Your task to perform on an android device: all mails in gmail Image 0: 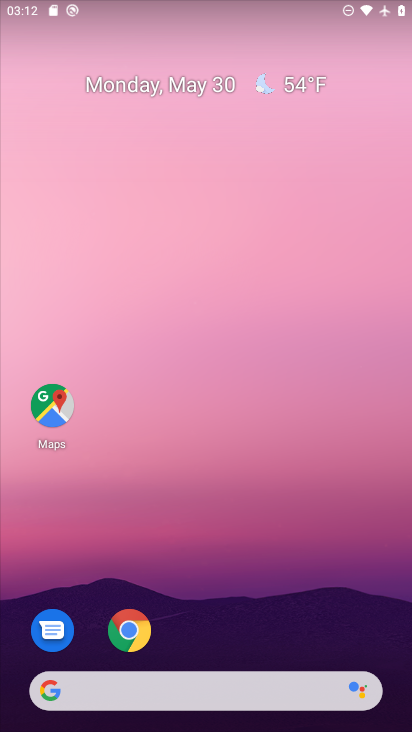
Step 0: press home button
Your task to perform on an android device: all mails in gmail Image 1: 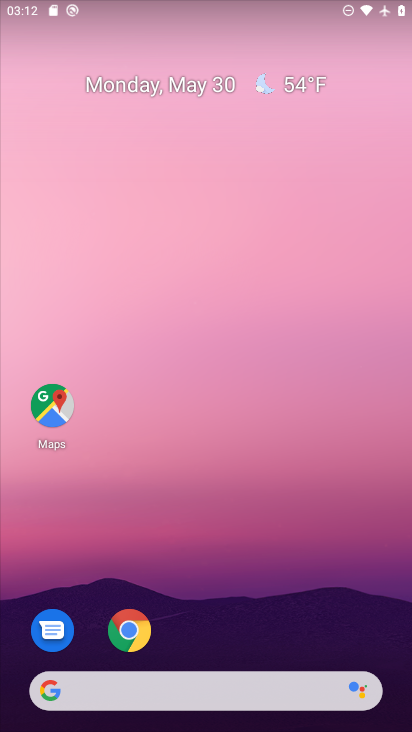
Step 1: drag from (189, 699) to (270, 301)
Your task to perform on an android device: all mails in gmail Image 2: 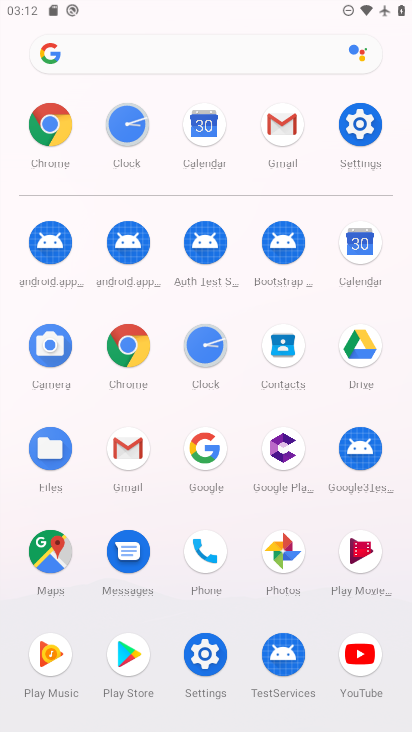
Step 2: click (273, 139)
Your task to perform on an android device: all mails in gmail Image 3: 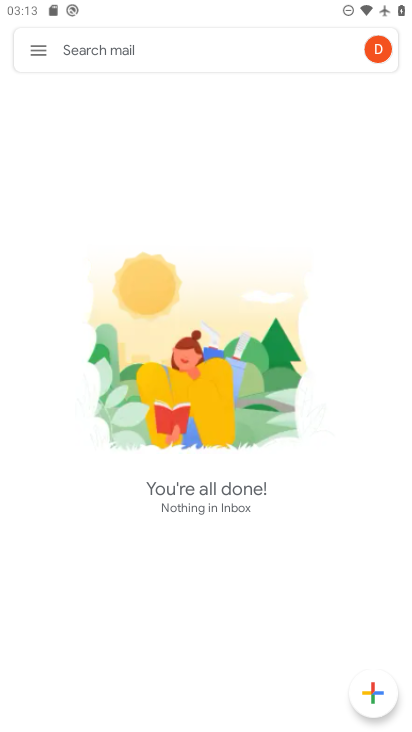
Step 3: click (28, 49)
Your task to perform on an android device: all mails in gmail Image 4: 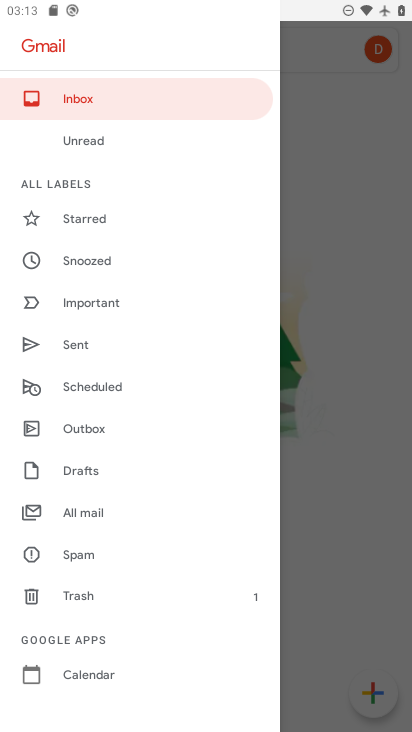
Step 4: click (102, 517)
Your task to perform on an android device: all mails in gmail Image 5: 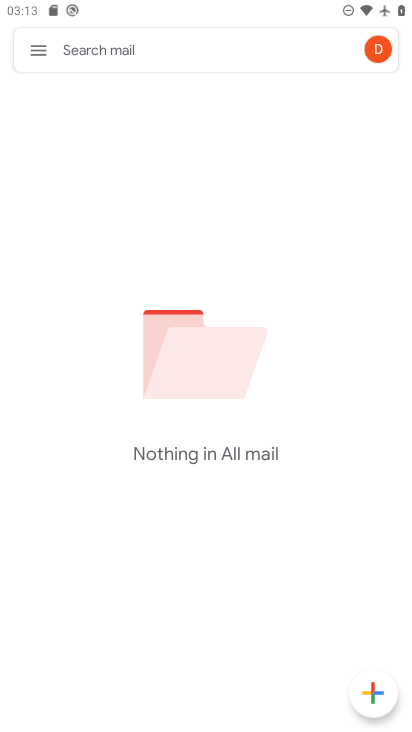
Step 5: task complete